Your task to perform on an android device: change the clock style Image 0: 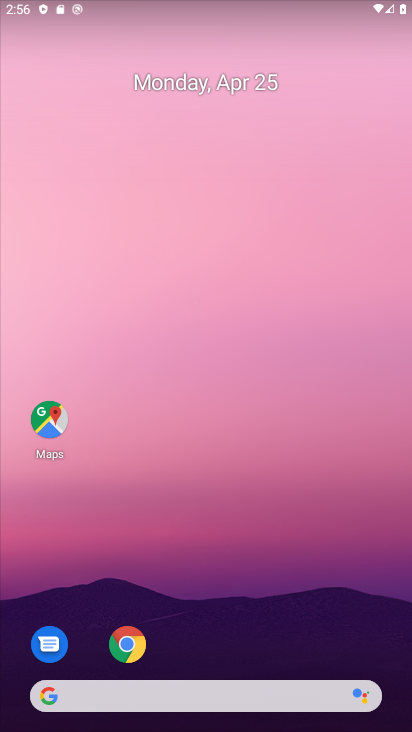
Step 0: drag from (281, 556) to (274, 17)
Your task to perform on an android device: change the clock style Image 1: 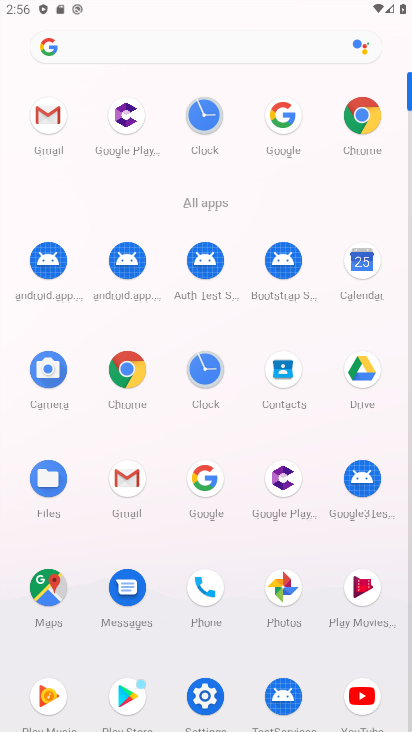
Step 1: click (203, 115)
Your task to perform on an android device: change the clock style Image 2: 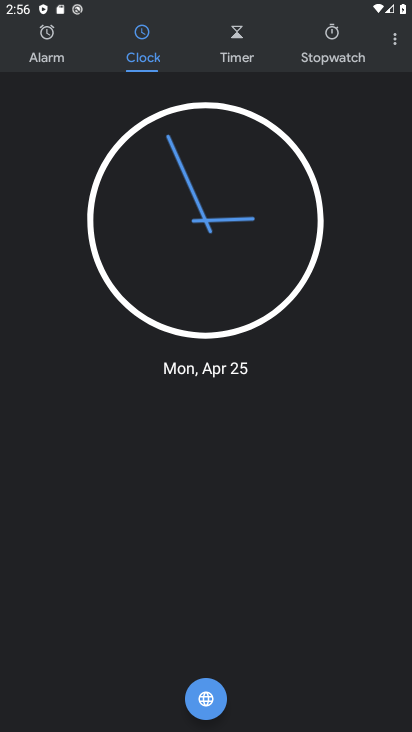
Step 2: click (394, 38)
Your task to perform on an android device: change the clock style Image 3: 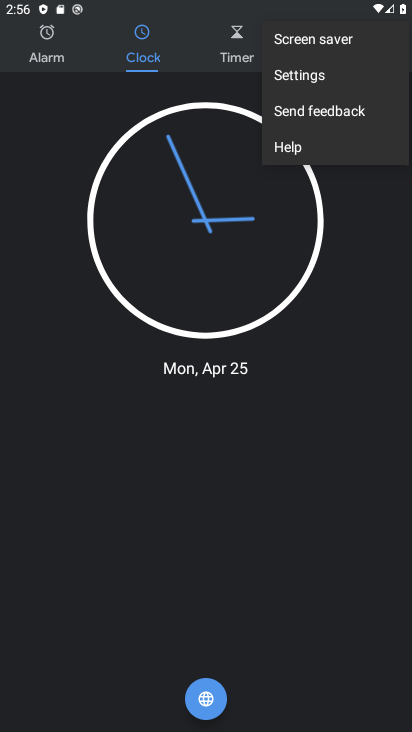
Step 3: click (302, 73)
Your task to perform on an android device: change the clock style Image 4: 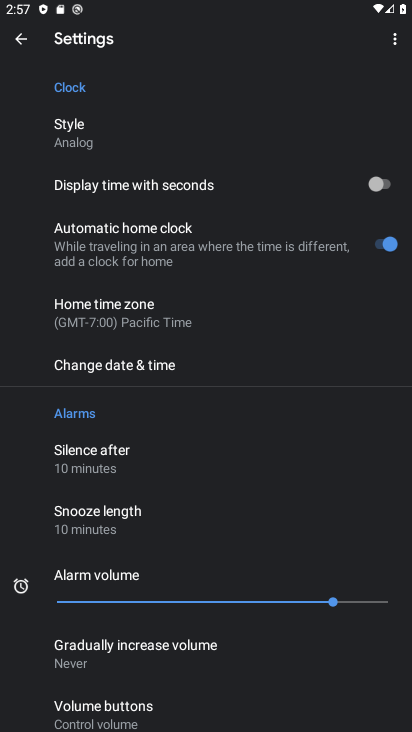
Step 4: click (79, 136)
Your task to perform on an android device: change the clock style Image 5: 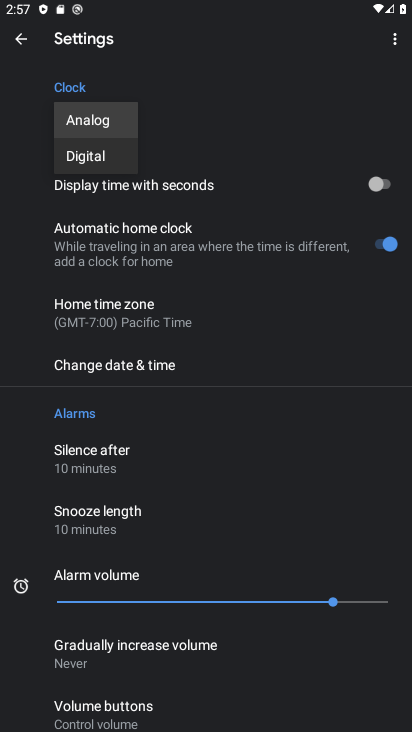
Step 5: click (102, 155)
Your task to perform on an android device: change the clock style Image 6: 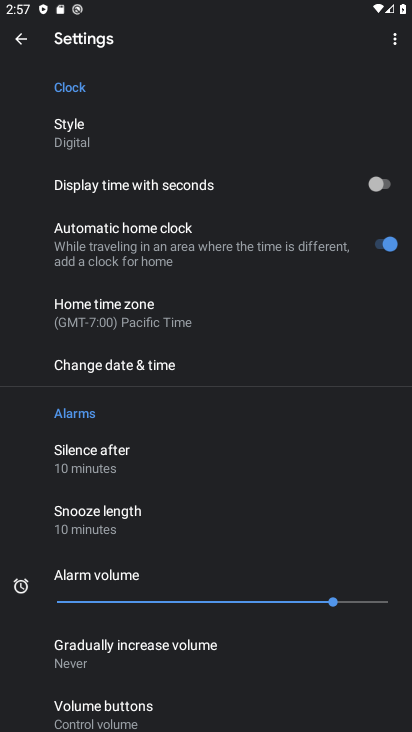
Step 6: task complete